Your task to perform on an android device: open app "Indeed Job Search" (install if not already installed) Image 0: 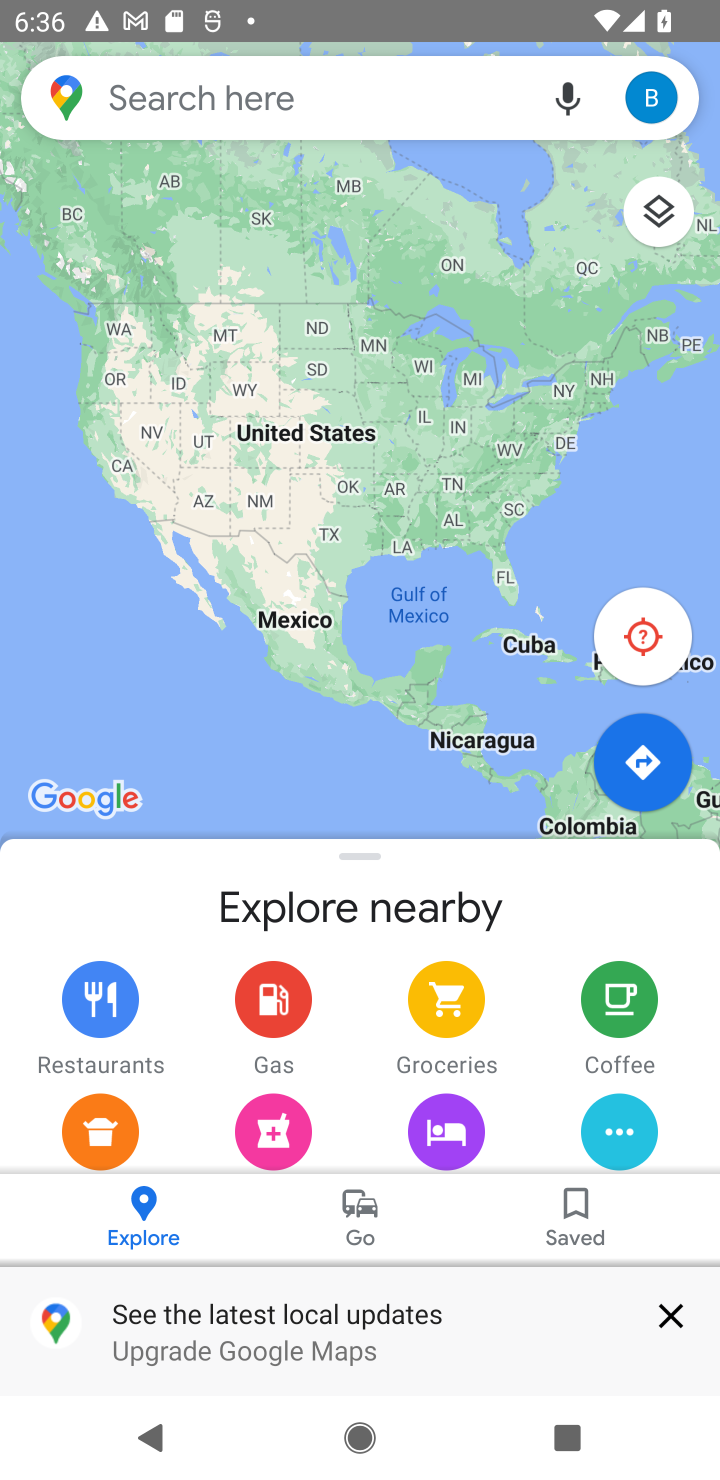
Step 0: press home button
Your task to perform on an android device: open app "Indeed Job Search" (install if not already installed) Image 1: 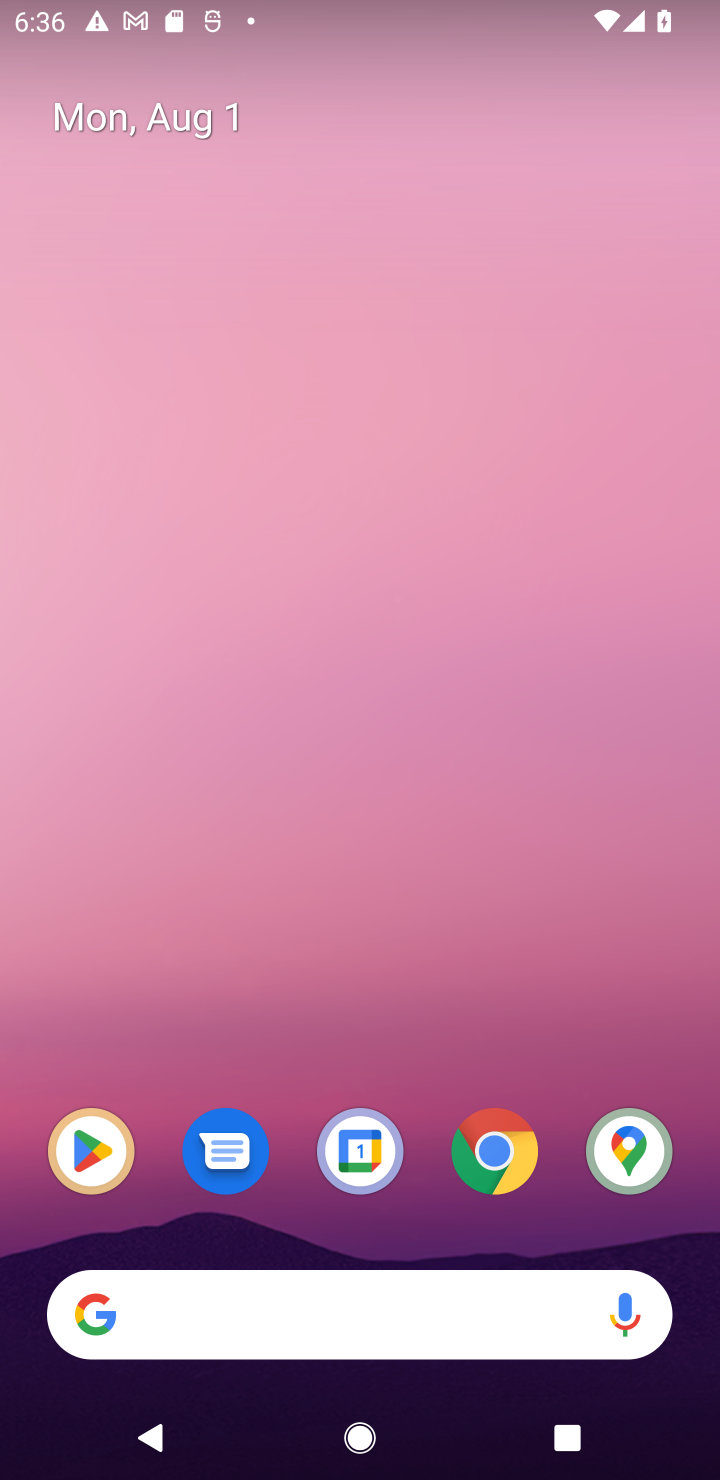
Step 1: drag from (421, 1306) to (433, 766)
Your task to perform on an android device: open app "Indeed Job Search" (install if not already installed) Image 2: 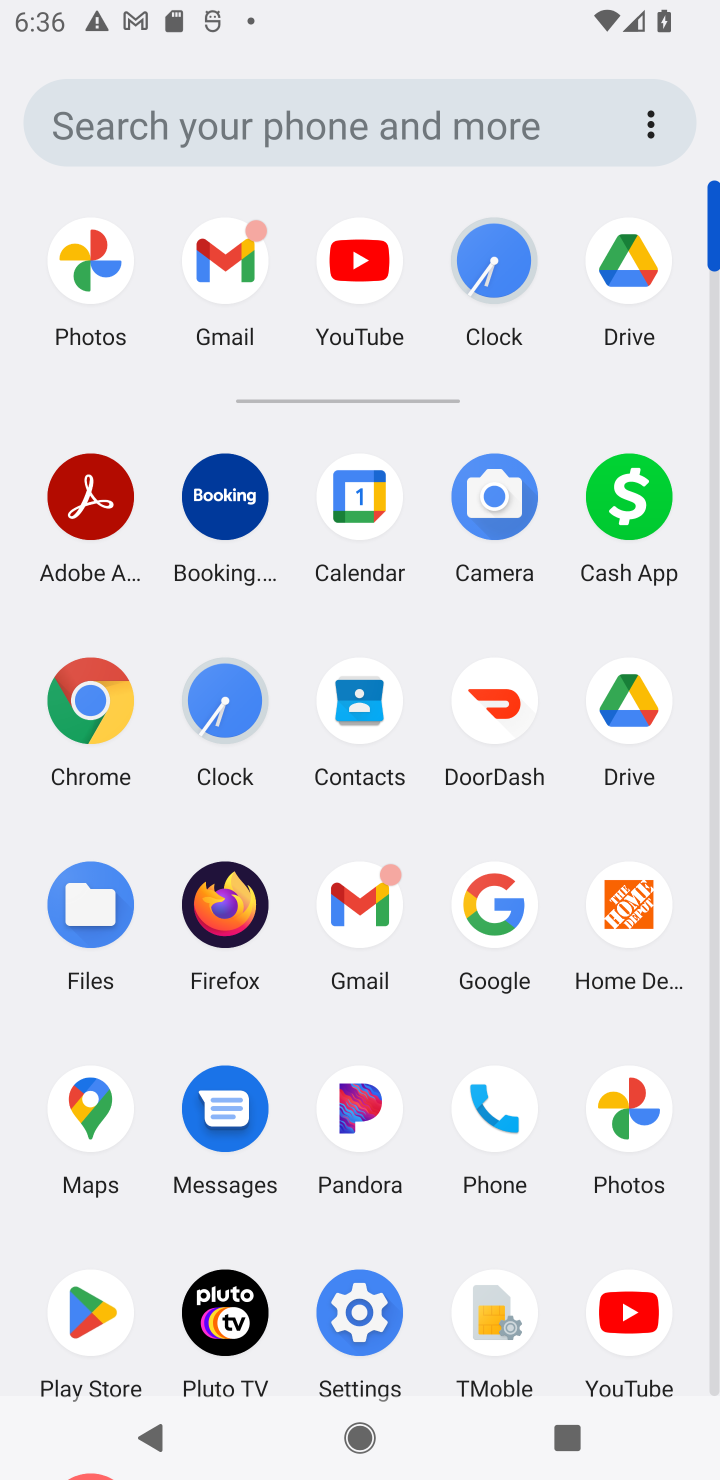
Step 2: click (87, 1315)
Your task to perform on an android device: open app "Indeed Job Search" (install if not already installed) Image 3: 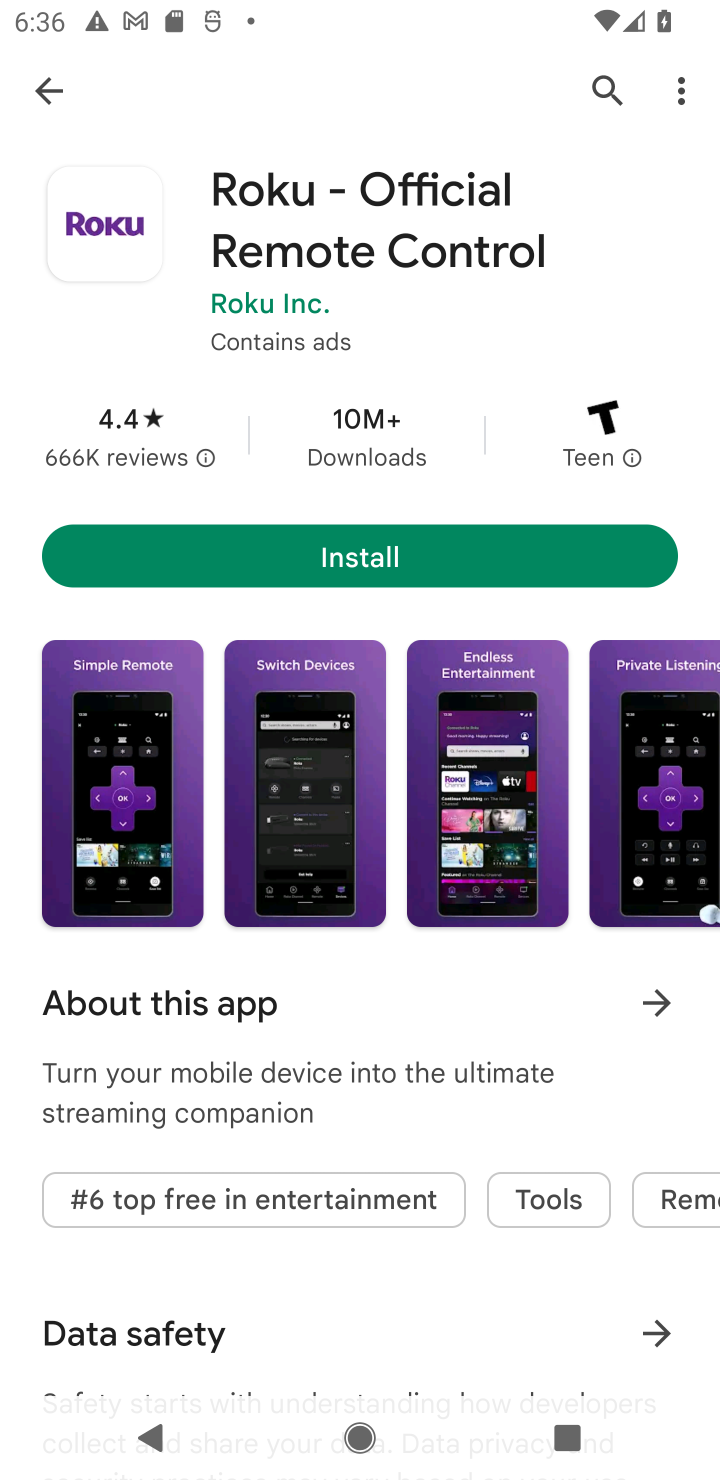
Step 3: click (606, 84)
Your task to perform on an android device: open app "Indeed Job Search" (install if not already installed) Image 4: 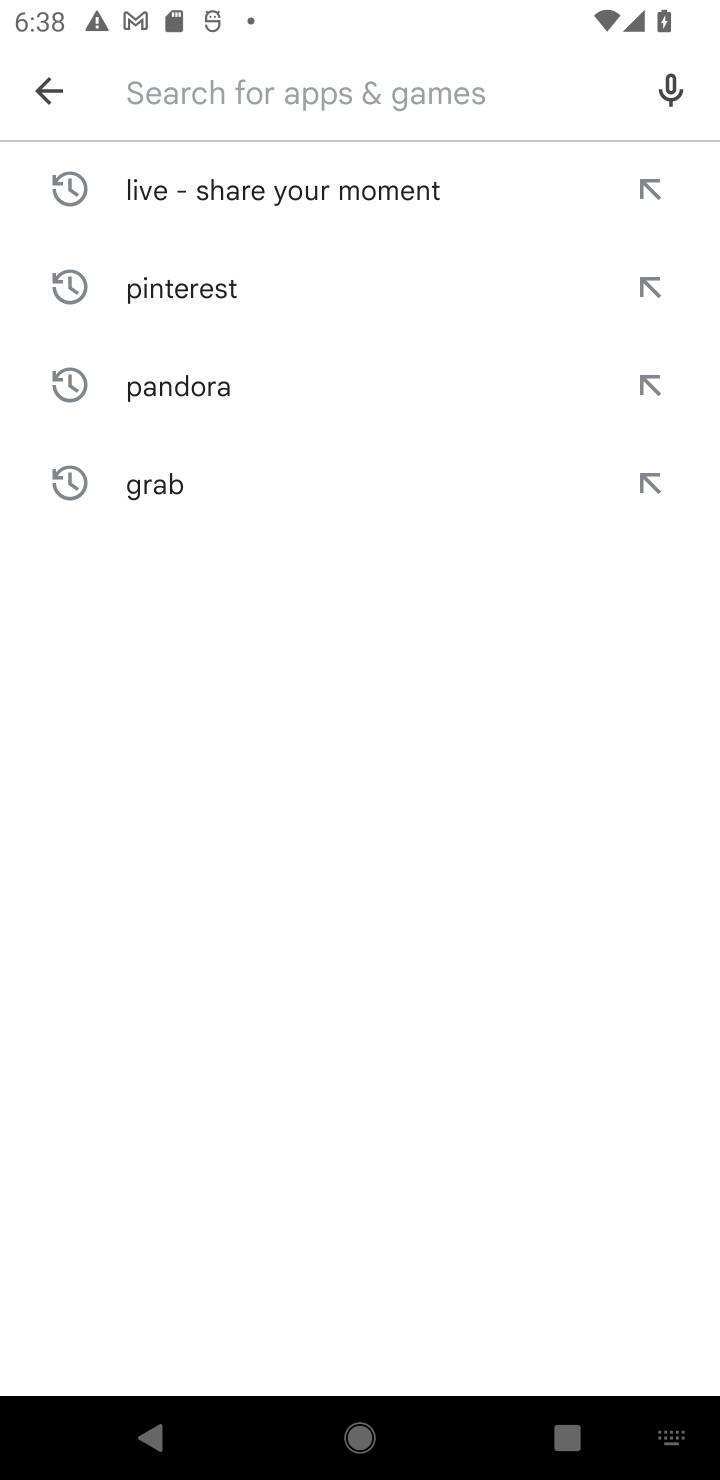
Step 4: click (231, 104)
Your task to perform on an android device: open app "Indeed Job Search" (install if not already installed) Image 5: 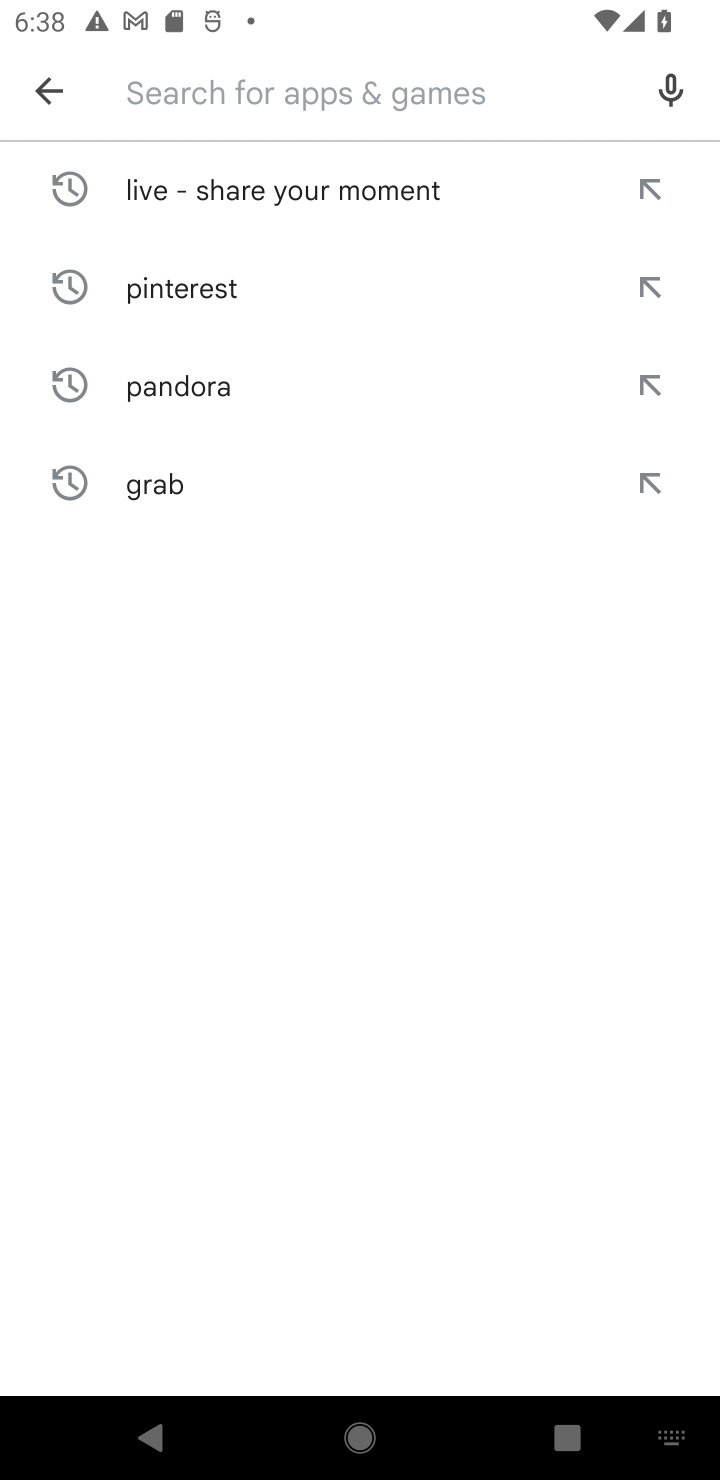
Step 5: type "indeed job search"
Your task to perform on an android device: open app "Indeed Job Search" (install if not already installed) Image 6: 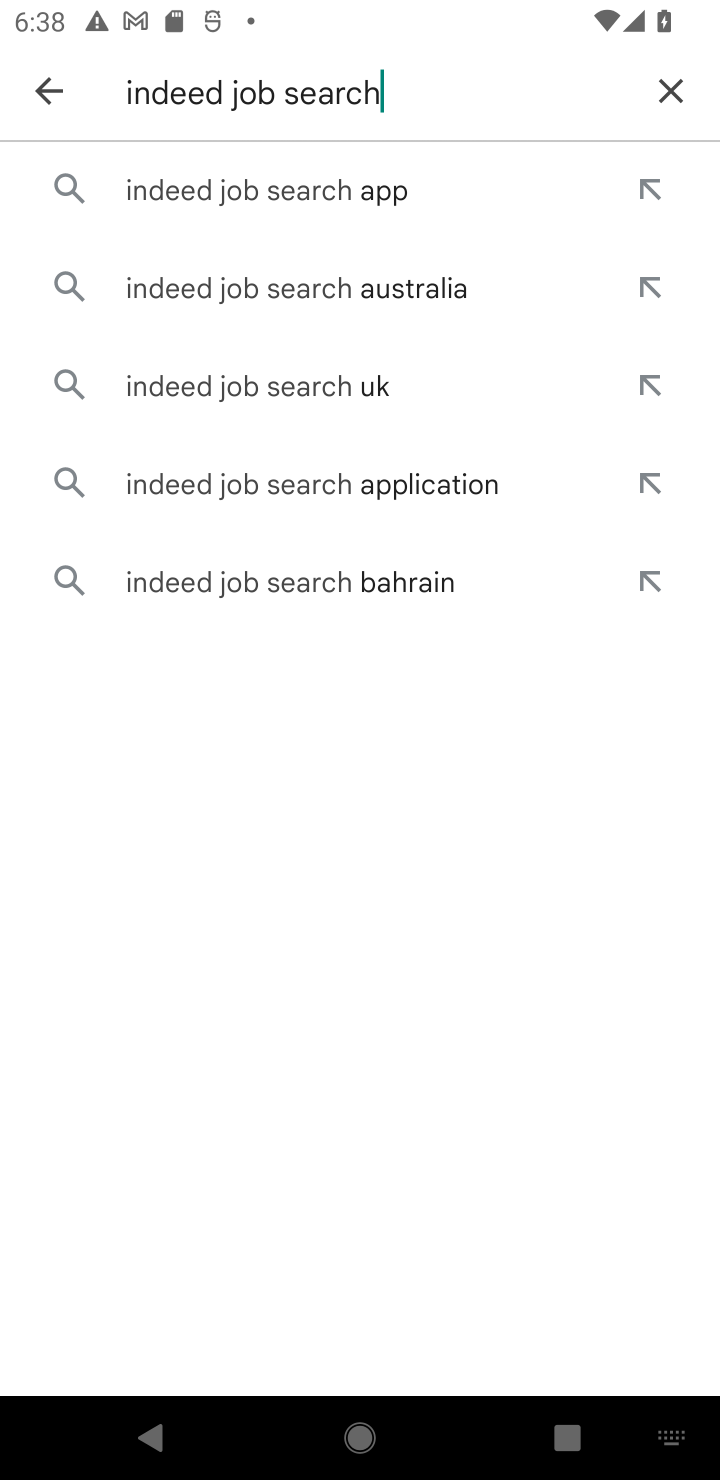
Step 6: click (334, 187)
Your task to perform on an android device: open app "Indeed Job Search" (install if not already installed) Image 7: 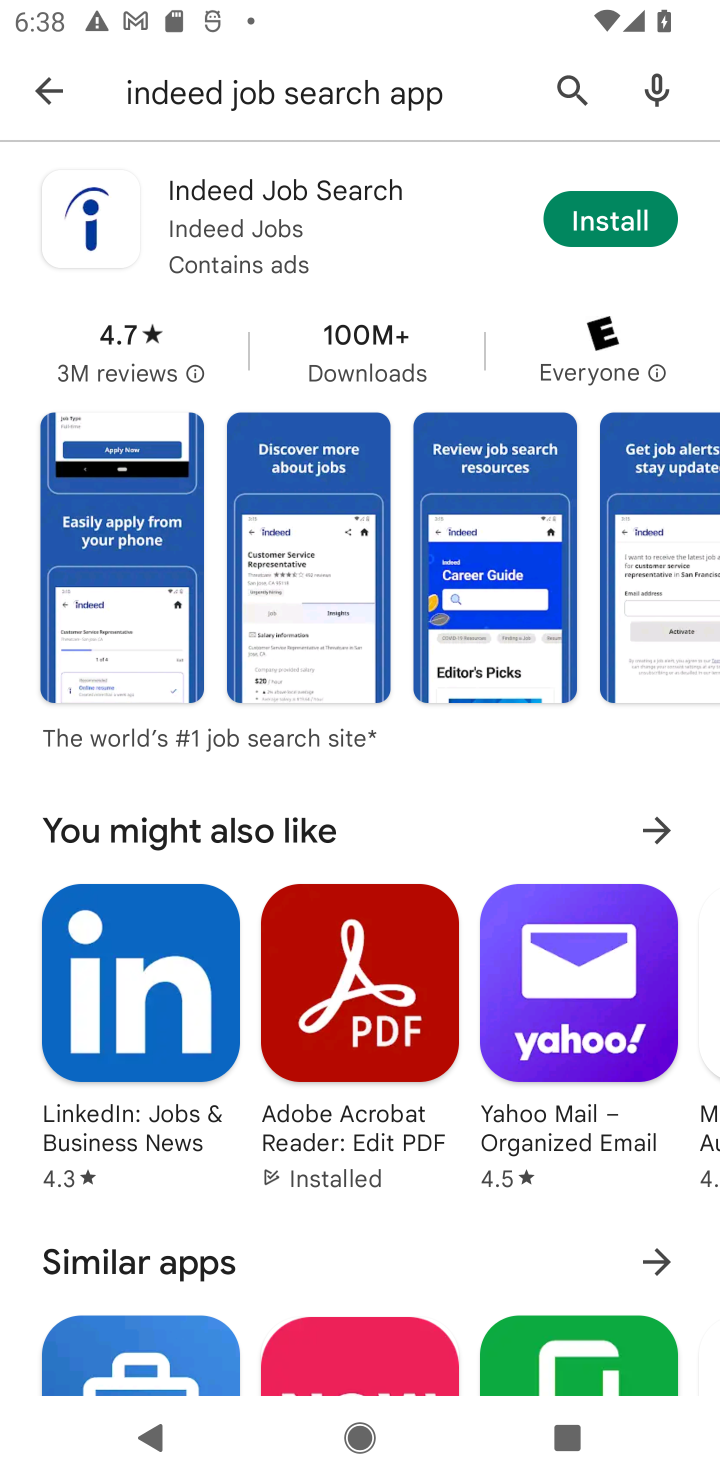
Step 7: click (633, 202)
Your task to perform on an android device: open app "Indeed Job Search" (install if not already installed) Image 8: 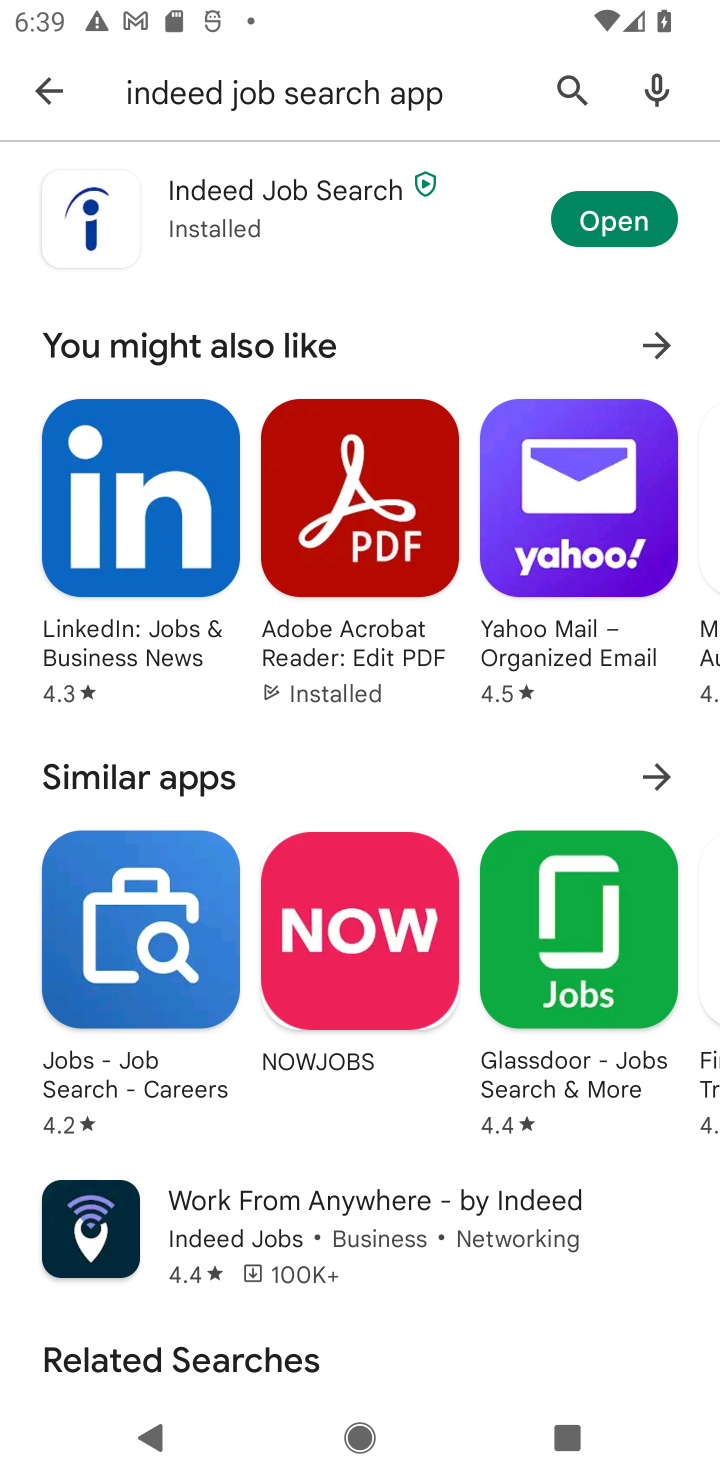
Step 8: click (606, 213)
Your task to perform on an android device: open app "Indeed Job Search" (install if not already installed) Image 9: 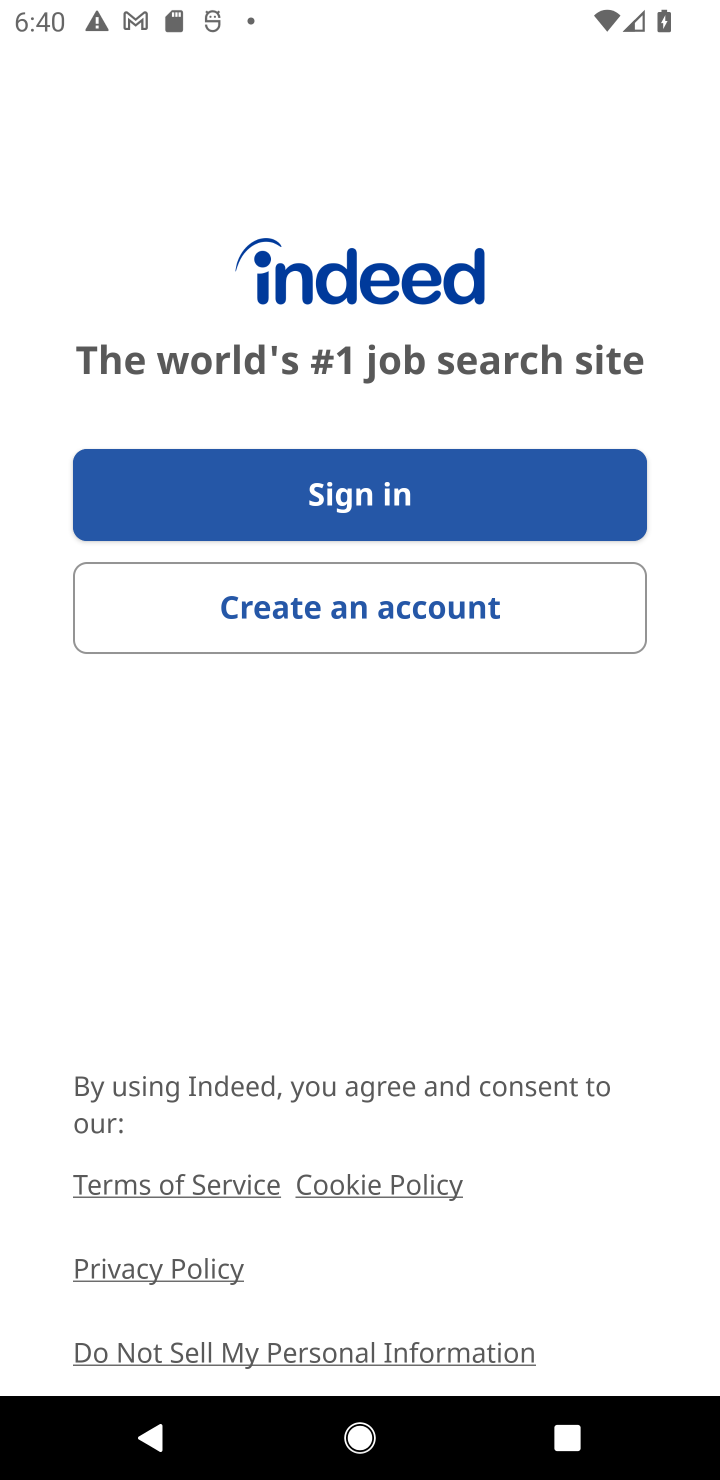
Step 9: task complete